Your task to perform on an android device: check android version Image 0: 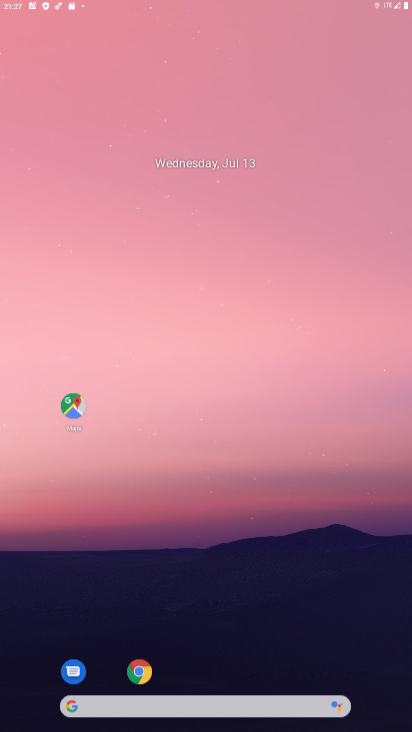
Step 0: click (162, 562)
Your task to perform on an android device: check android version Image 1: 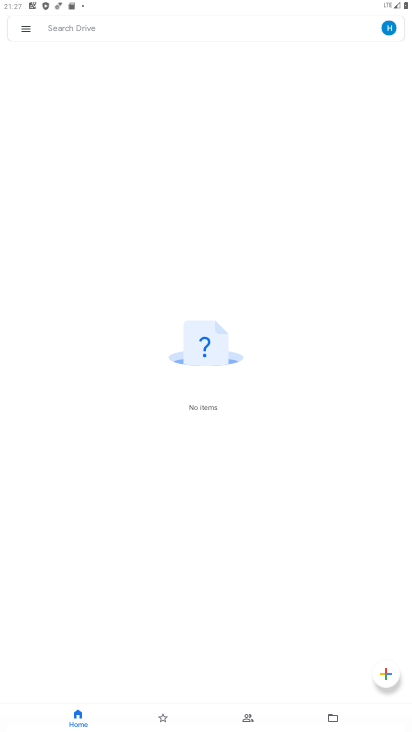
Step 1: press home button
Your task to perform on an android device: check android version Image 2: 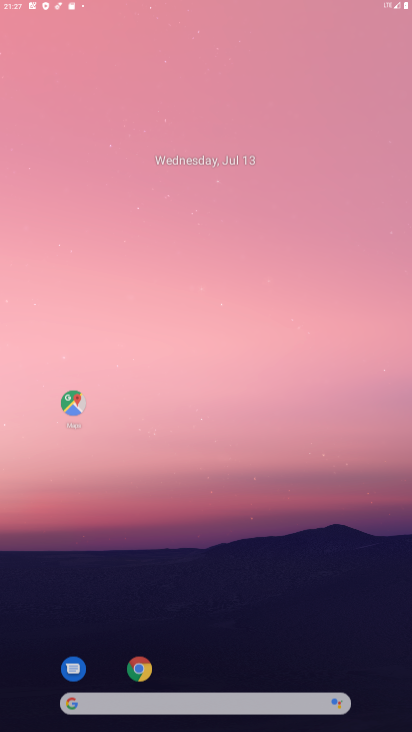
Step 2: drag from (187, 609) to (163, 107)
Your task to perform on an android device: check android version Image 3: 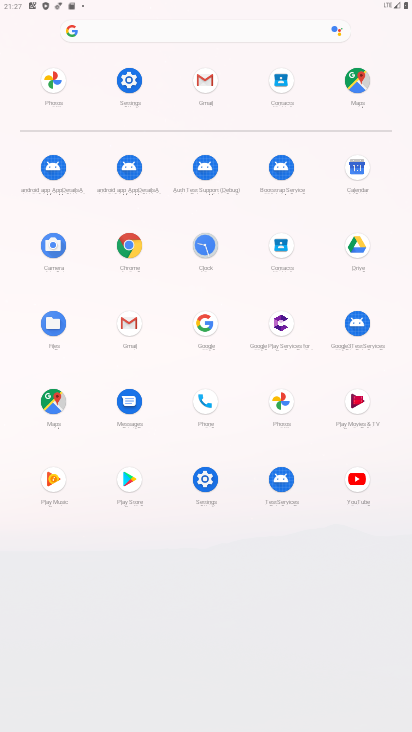
Step 3: click (128, 76)
Your task to perform on an android device: check android version Image 4: 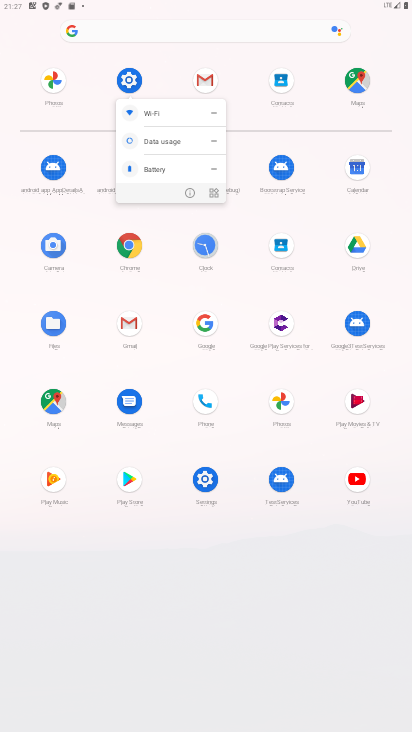
Step 4: click (186, 196)
Your task to perform on an android device: check android version Image 5: 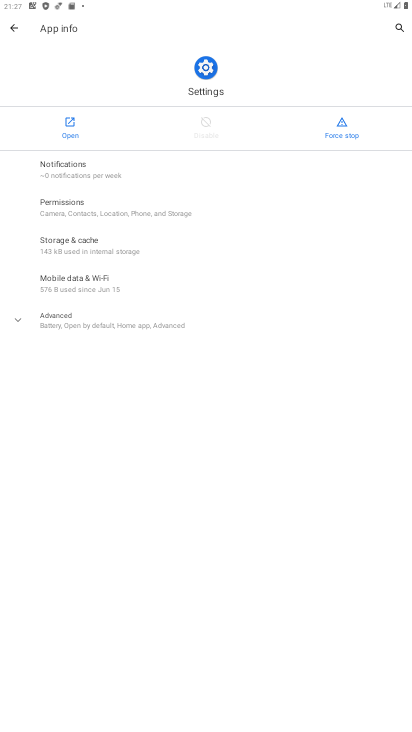
Step 5: click (66, 116)
Your task to perform on an android device: check android version Image 6: 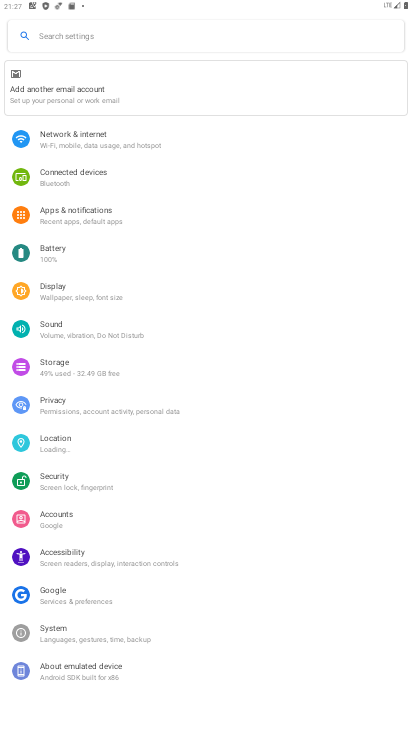
Step 6: click (100, 680)
Your task to perform on an android device: check android version Image 7: 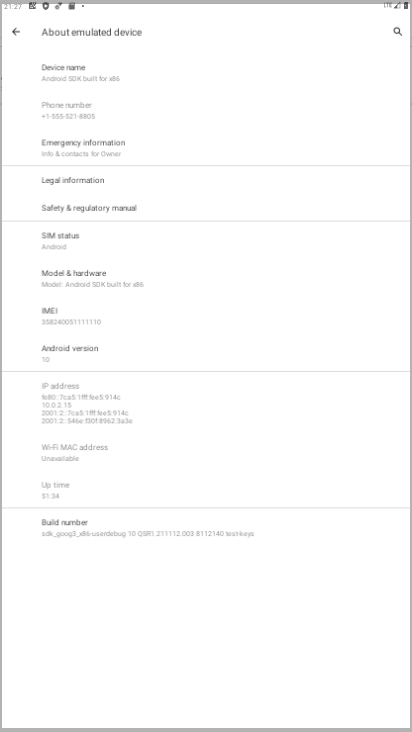
Step 7: drag from (181, 615) to (194, 261)
Your task to perform on an android device: check android version Image 8: 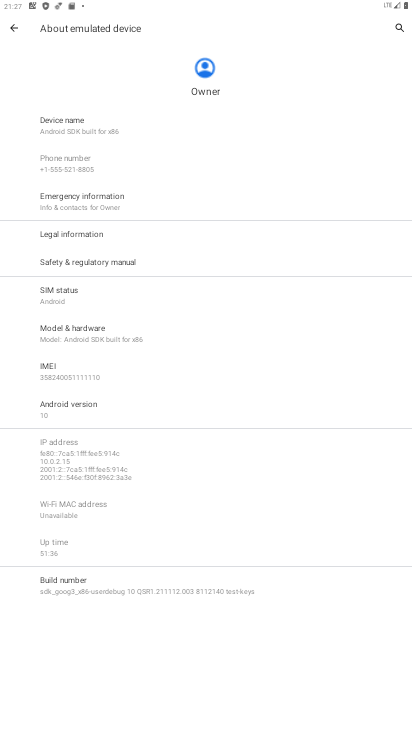
Step 8: click (121, 410)
Your task to perform on an android device: check android version Image 9: 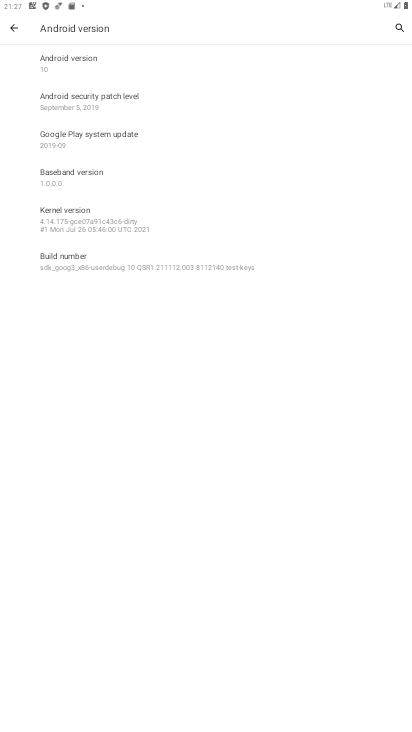
Step 9: click (136, 61)
Your task to perform on an android device: check android version Image 10: 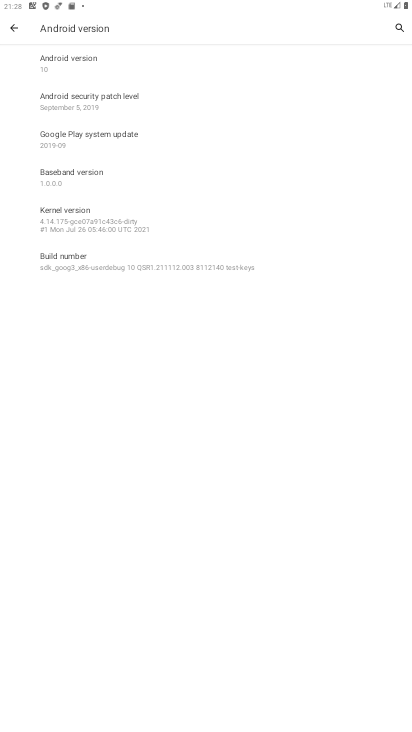
Step 10: click (102, 70)
Your task to perform on an android device: check android version Image 11: 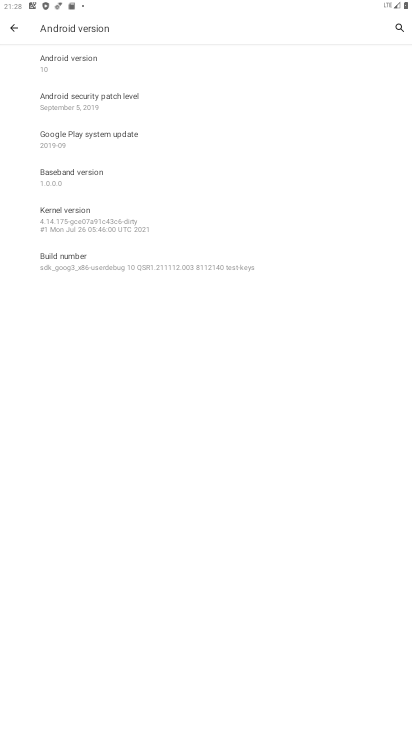
Step 11: task complete